Your task to perform on an android device: check out phone information Image 0: 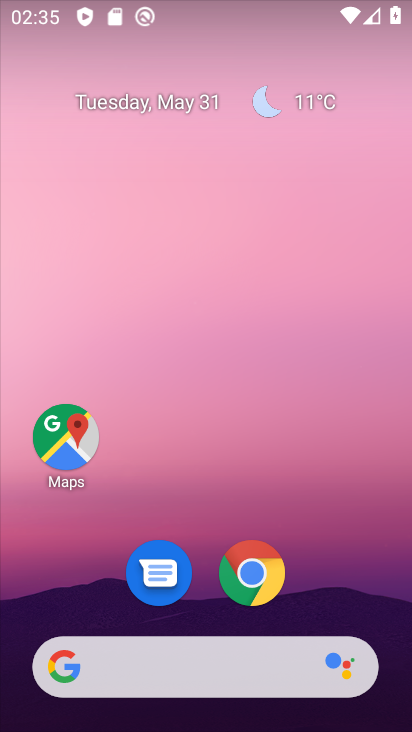
Step 0: drag from (375, 623) to (301, 206)
Your task to perform on an android device: check out phone information Image 1: 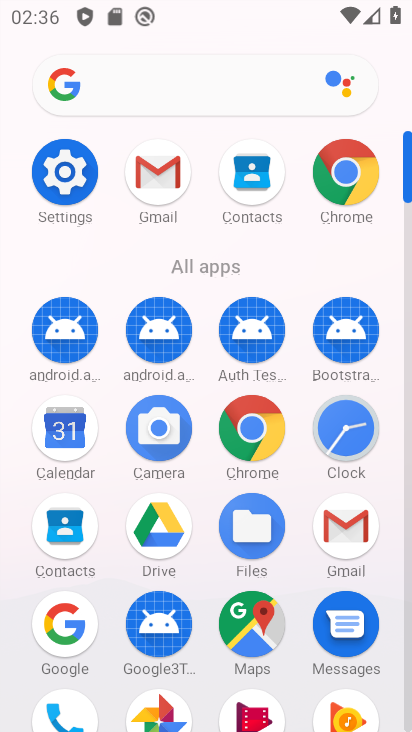
Step 1: click (67, 166)
Your task to perform on an android device: check out phone information Image 2: 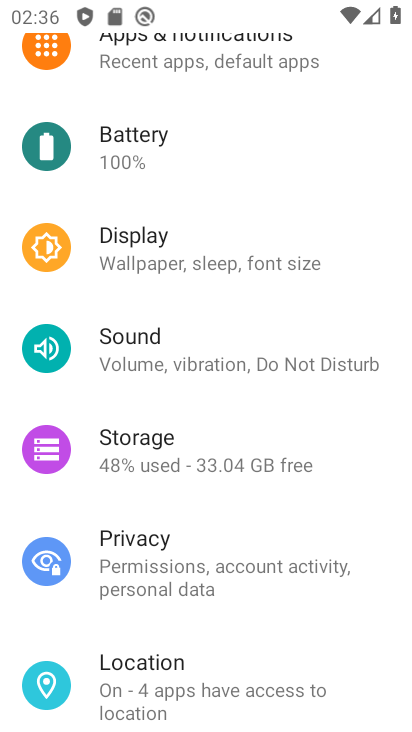
Step 2: drag from (229, 683) to (214, 212)
Your task to perform on an android device: check out phone information Image 3: 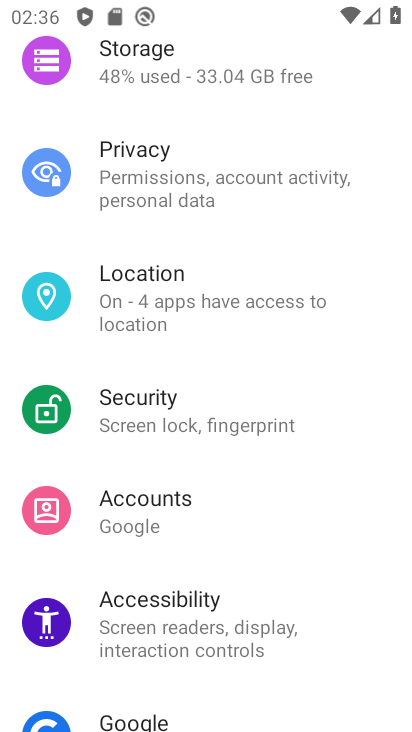
Step 3: drag from (210, 642) to (188, 291)
Your task to perform on an android device: check out phone information Image 4: 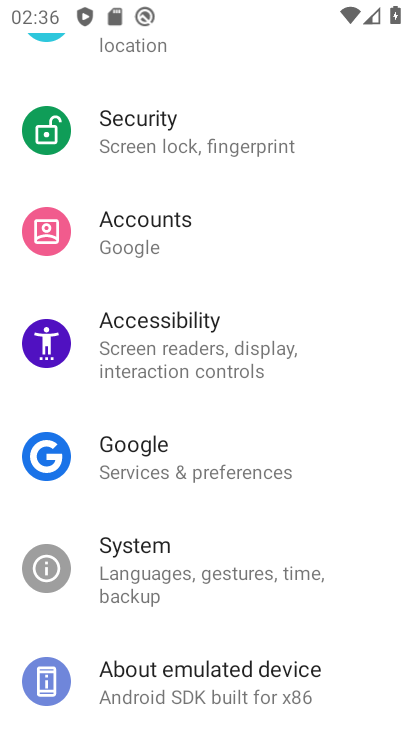
Step 4: drag from (188, 628) to (193, 365)
Your task to perform on an android device: check out phone information Image 5: 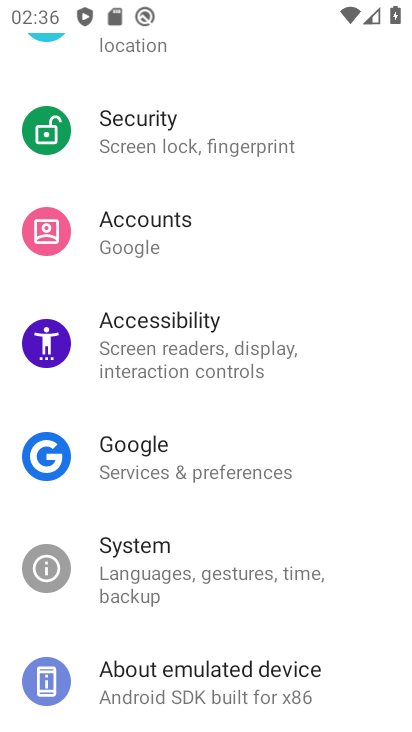
Step 5: click (215, 681)
Your task to perform on an android device: check out phone information Image 6: 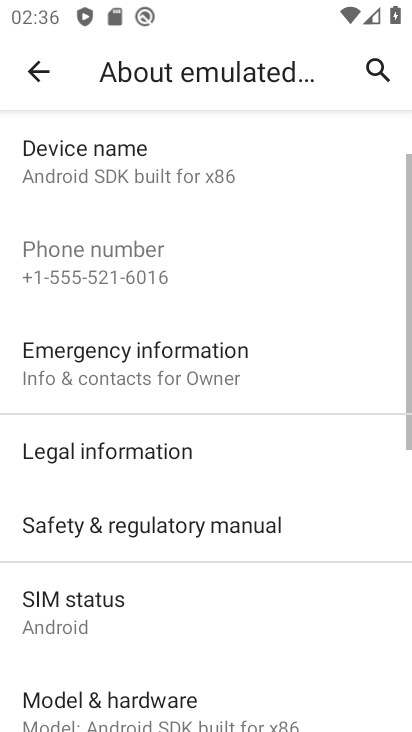
Step 6: task complete